Your task to perform on an android device: Is it going to rain today? Image 0: 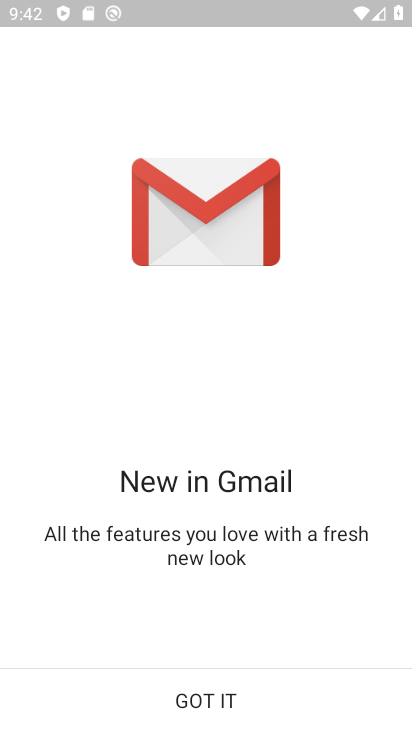
Step 0: press back button
Your task to perform on an android device: Is it going to rain today? Image 1: 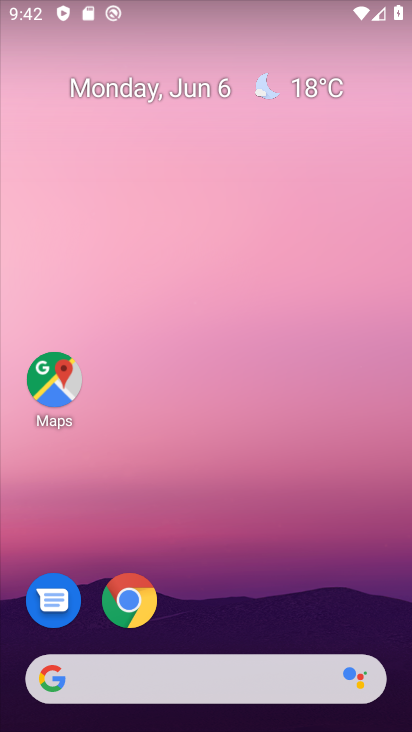
Step 1: drag from (227, 580) to (205, 23)
Your task to perform on an android device: Is it going to rain today? Image 2: 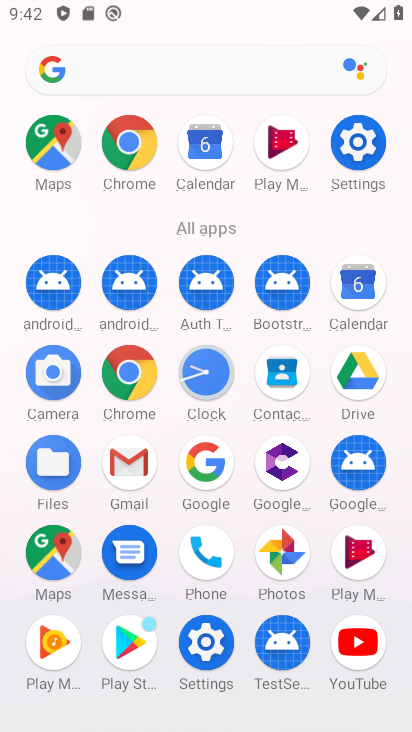
Step 2: click (127, 137)
Your task to perform on an android device: Is it going to rain today? Image 3: 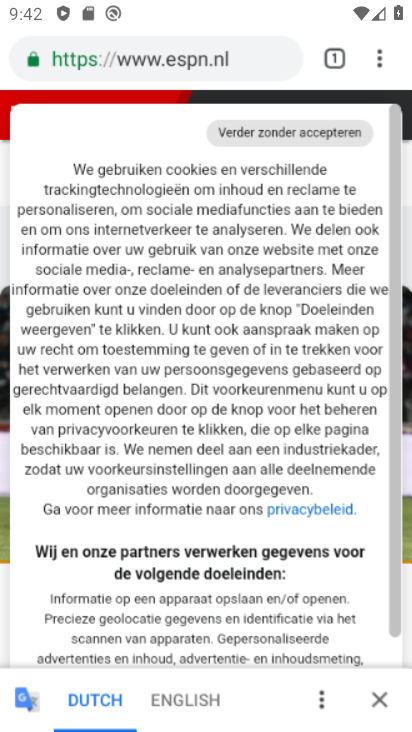
Step 3: click (174, 54)
Your task to perform on an android device: Is it going to rain today? Image 4: 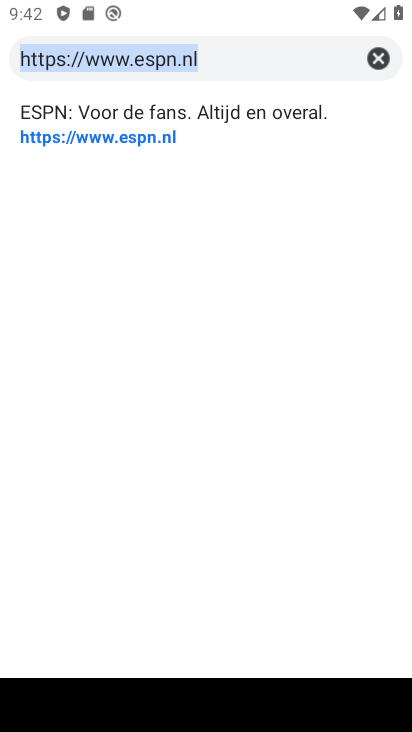
Step 4: click (382, 60)
Your task to perform on an android device: Is it going to rain today? Image 5: 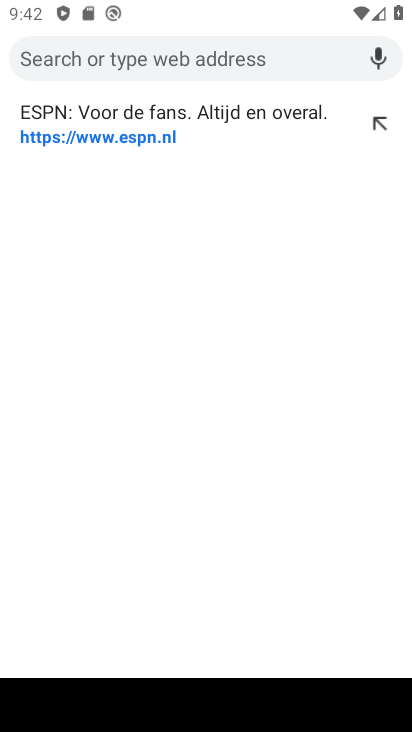
Step 5: type "Is it going to rain today?"
Your task to perform on an android device: Is it going to rain today? Image 6: 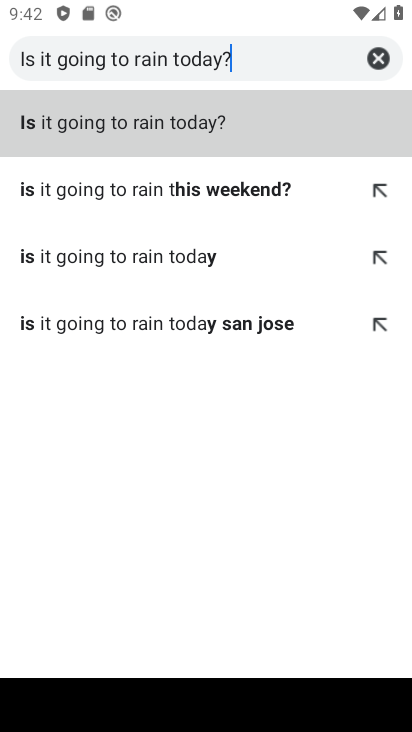
Step 6: type ""
Your task to perform on an android device: Is it going to rain today? Image 7: 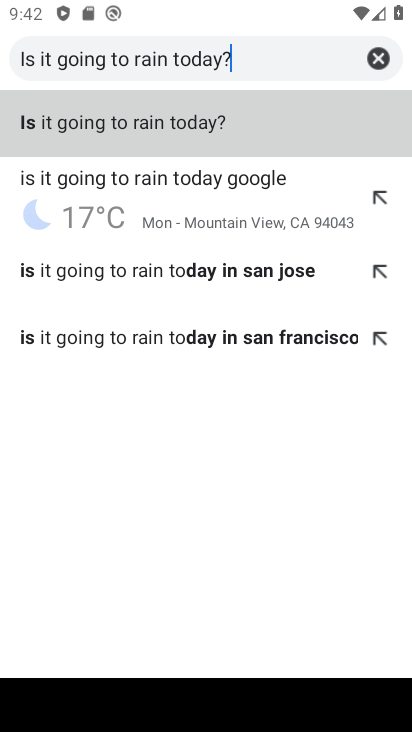
Step 7: click (211, 111)
Your task to perform on an android device: Is it going to rain today? Image 8: 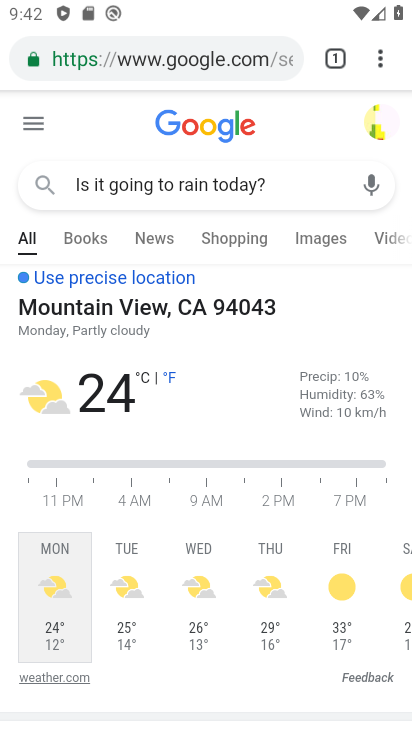
Step 8: task complete